Your task to perform on an android device: Go to battery settings Image 0: 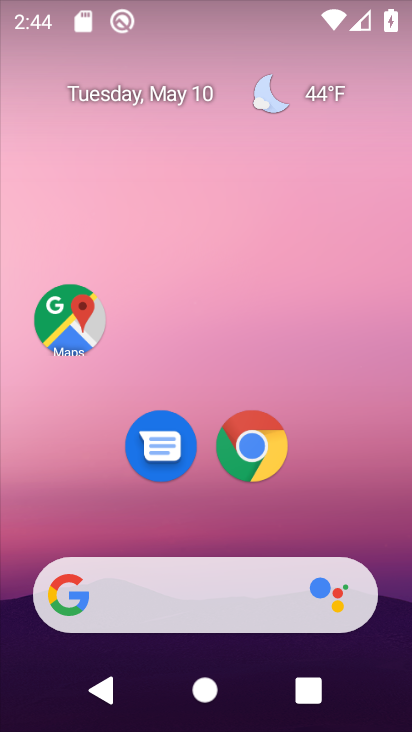
Step 0: drag from (363, 517) to (386, 31)
Your task to perform on an android device: Go to battery settings Image 1: 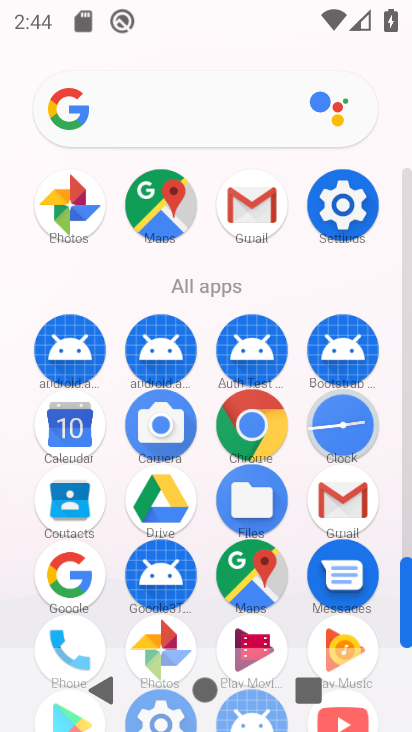
Step 1: click (337, 205)
Your task to perform on an android device: Go to battery settings Image 2: 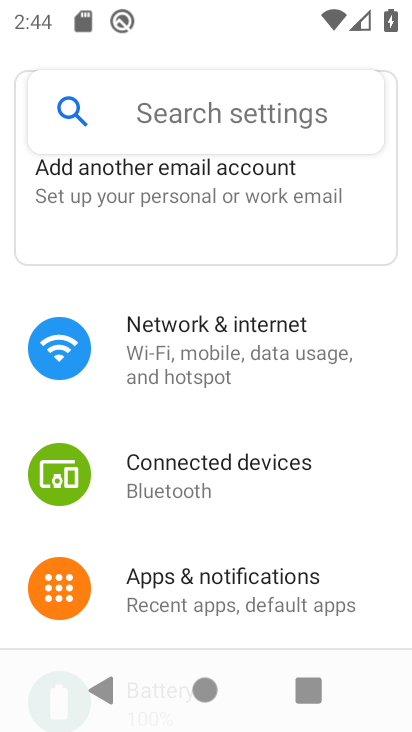
Step 2: drag from (174, 544) to (211, 155)
Your task to perform on an android device: Go to battery settings Image 3: 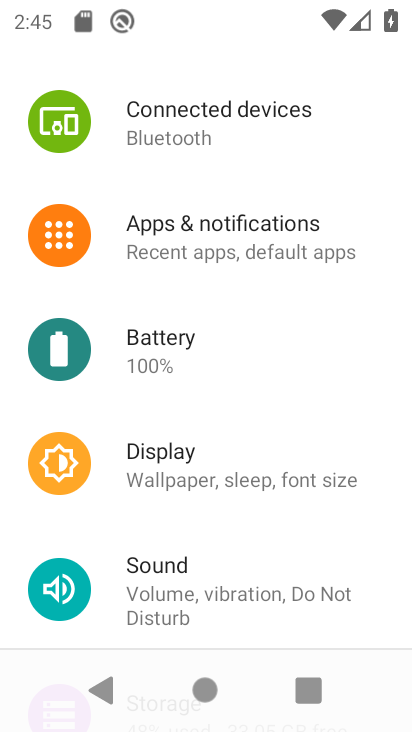
Step 3: click (199, 366)
Your task to perform on an android device: Go to battery settings Image 4: 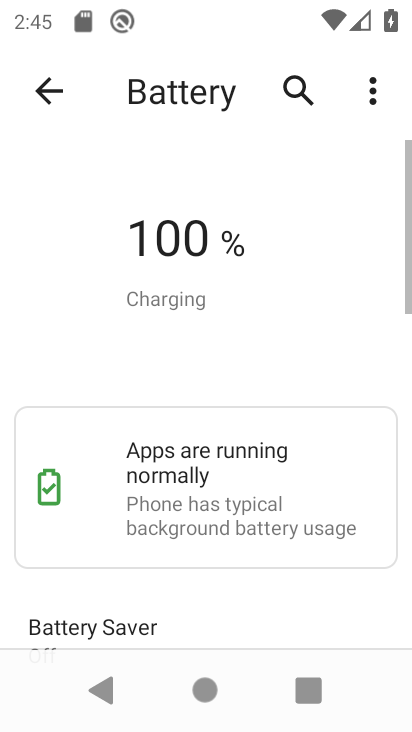
Step 4: task complete